Your task to perform on an android device: open a bookmark in the chrome app Image 0: 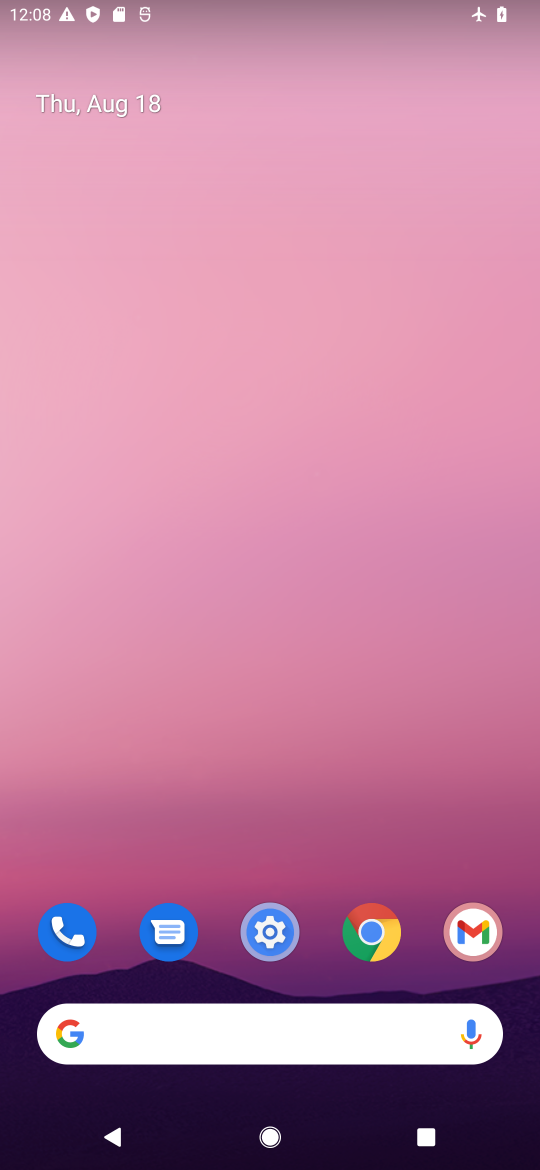
Step 0: click (376, 936)
Your task to perform on an android device: open a bookmark in the chrome app Image 1: 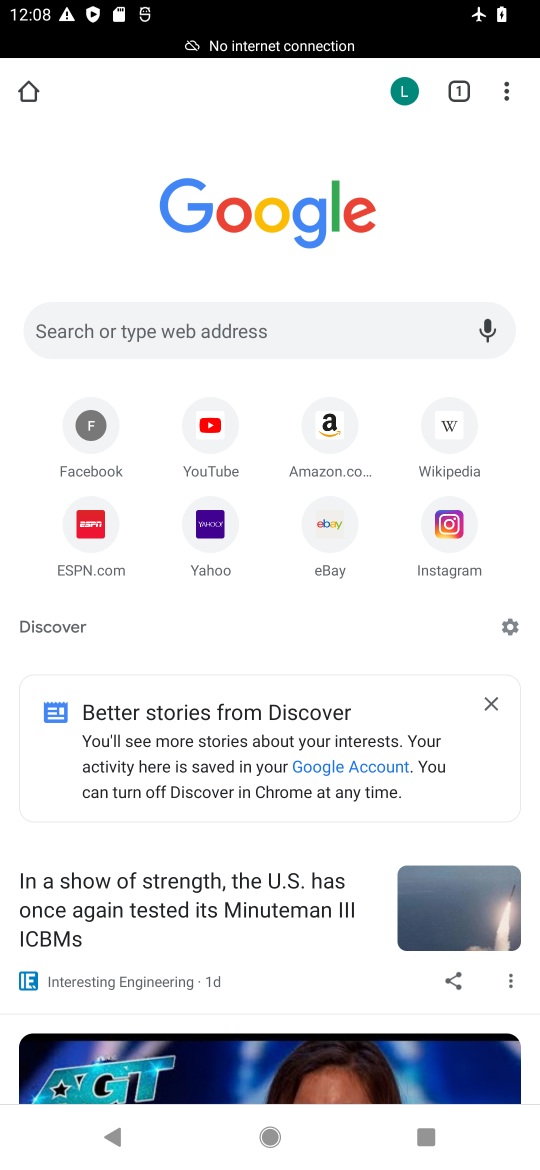
Step 1: click (509, 93)
Your task to perform on an android device: open a bookmark in the chrome app Image 2: 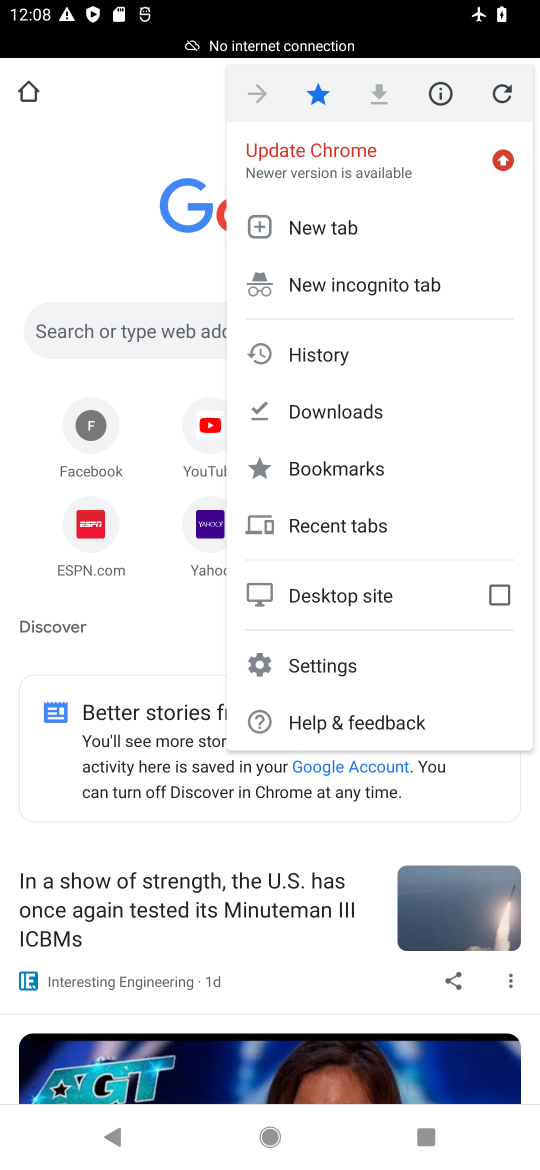
Step 2: click (366, 466)
Your task to perform on an android device: open a bookmark in the chrome app Image 3: 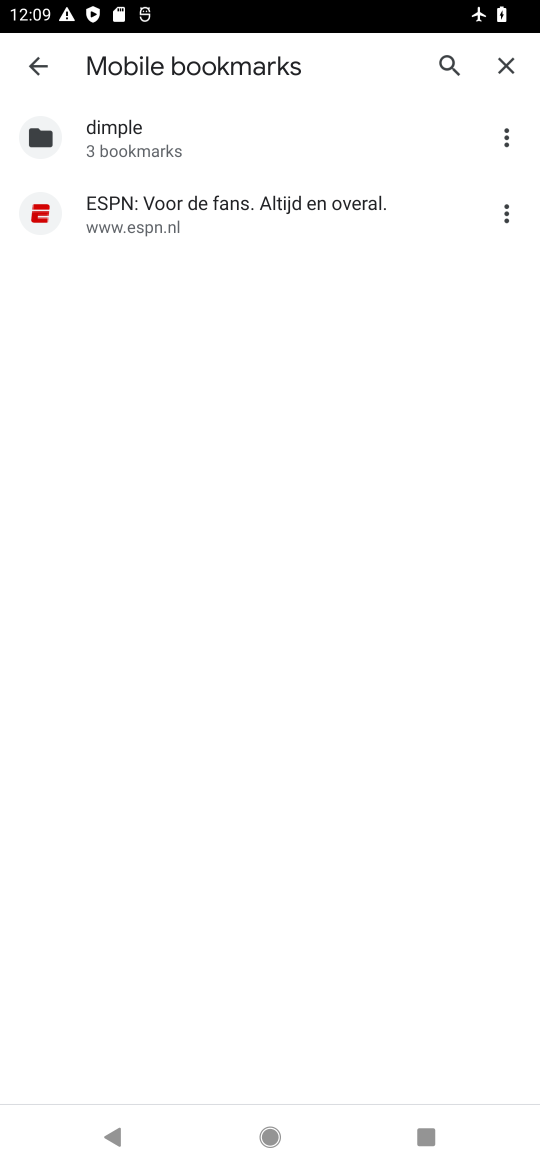
Step 3: task complete